Your task to perform on an android device: Open display settings Image 0: 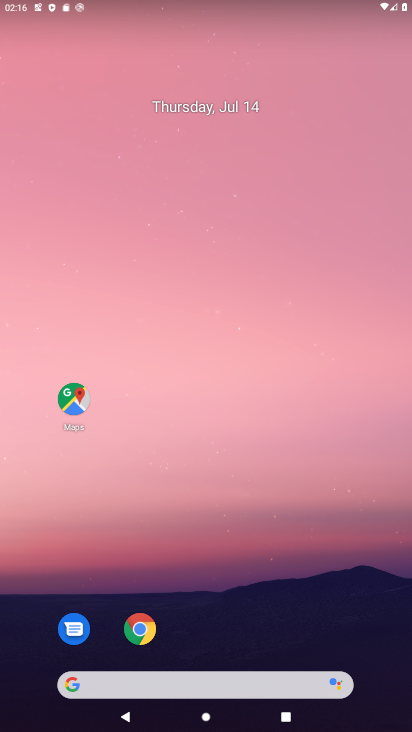
Step 0: drag from (218, 622) to (227, 6)
Your task to perform on an android device: Open display settings Image 1: 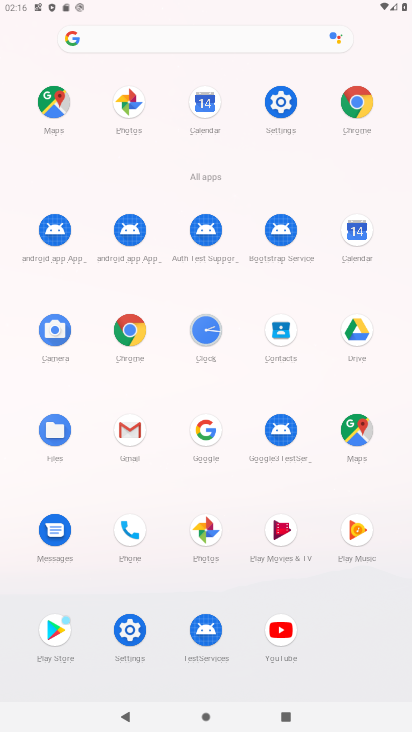
Step 1: click (139, 632)
Your task to perform on an android device: Open display settings Image 2: 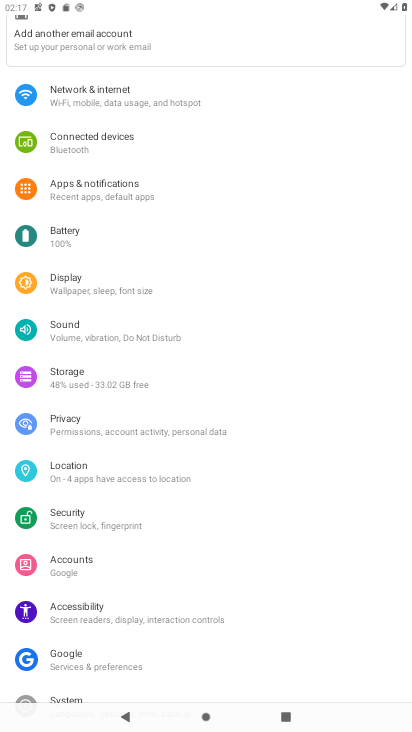
Step 2: click (106, 288)
Your task to perform on an android device: Open display settings Image 3: 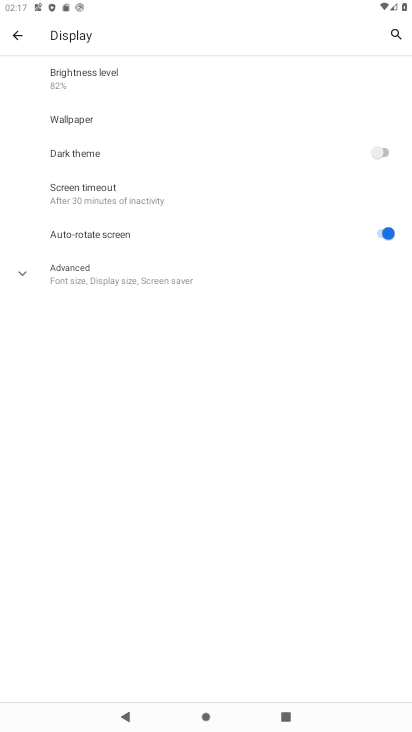
Step 3: task complete